Your task to perform on an android device: Go to Yahoo.com Image 0: 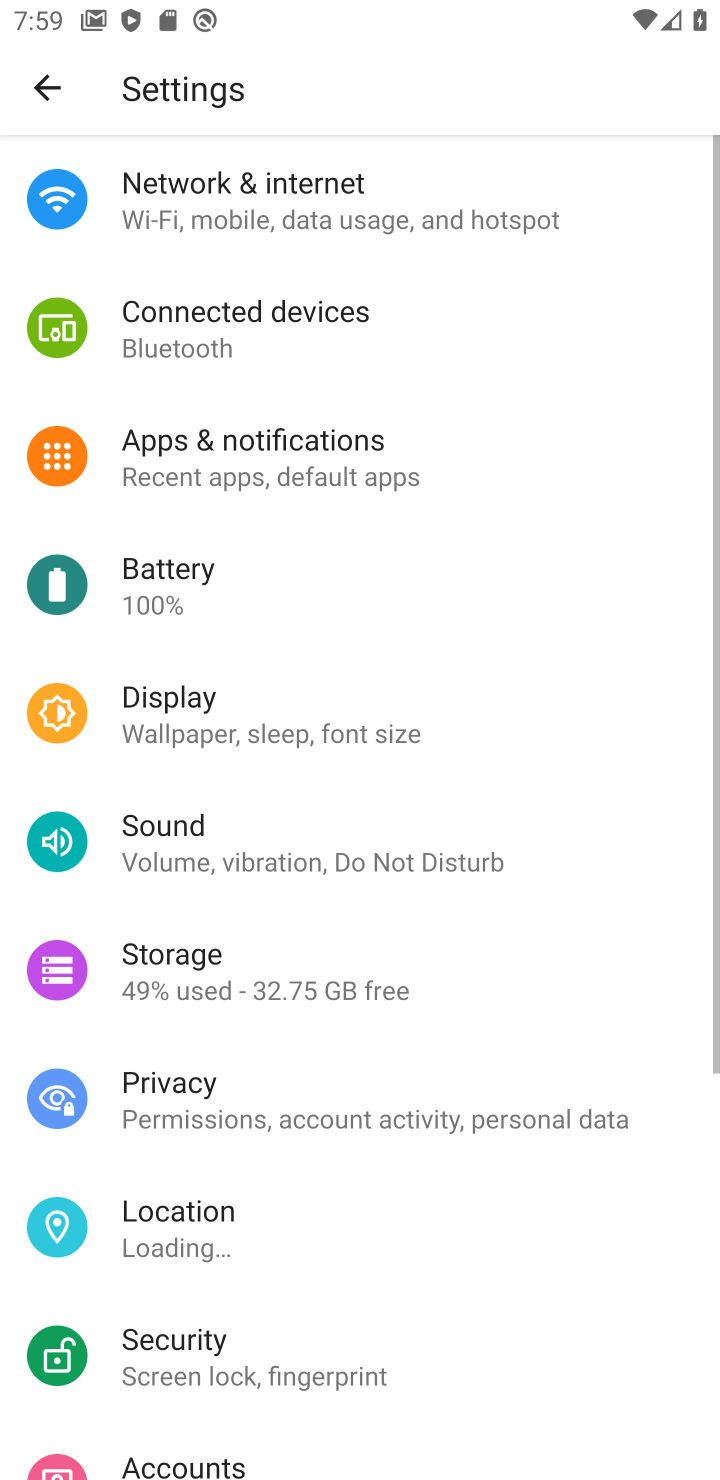
Step 0: press home button
Your task to perform on an android device: Go to Yahoo.com Image 1: 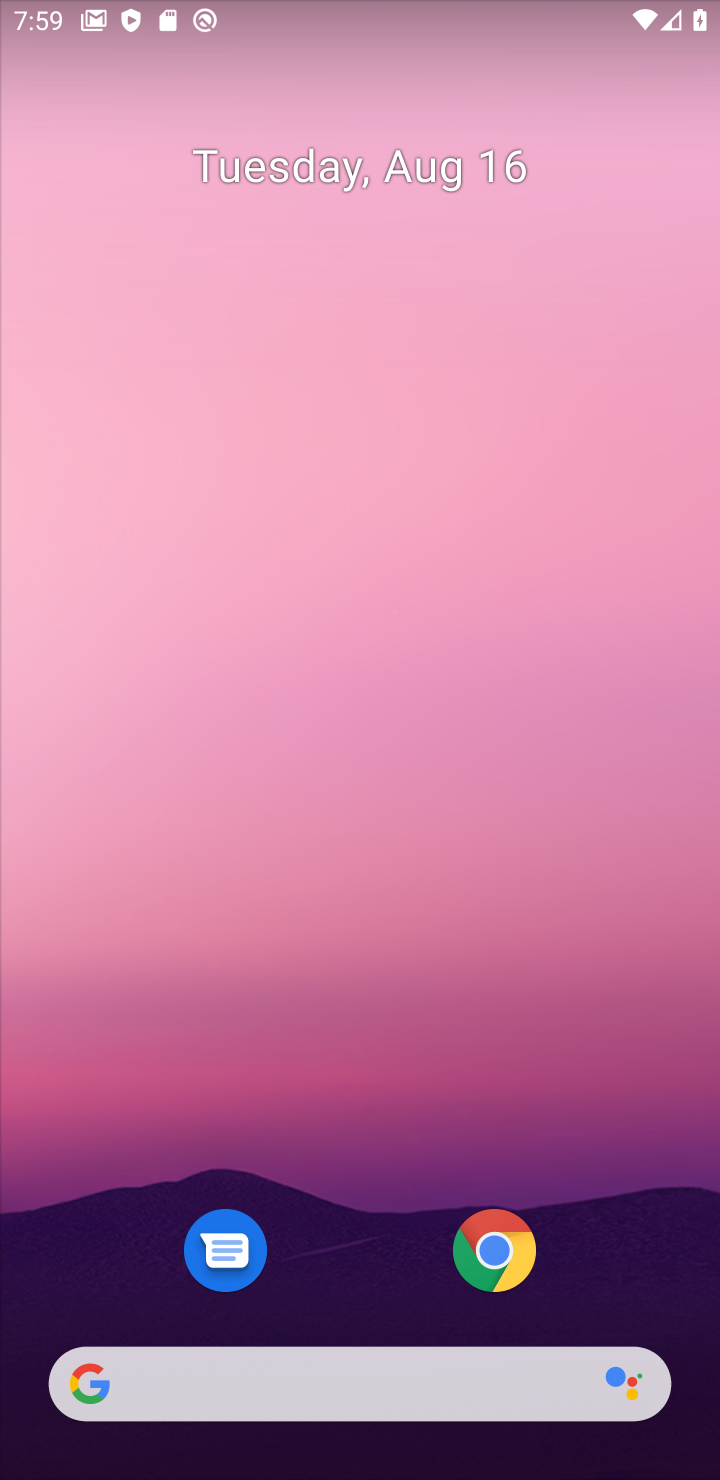
Step 1: click (496, 1251)
Your task to perform on an android device: Go to Yahoo.com Image 2: 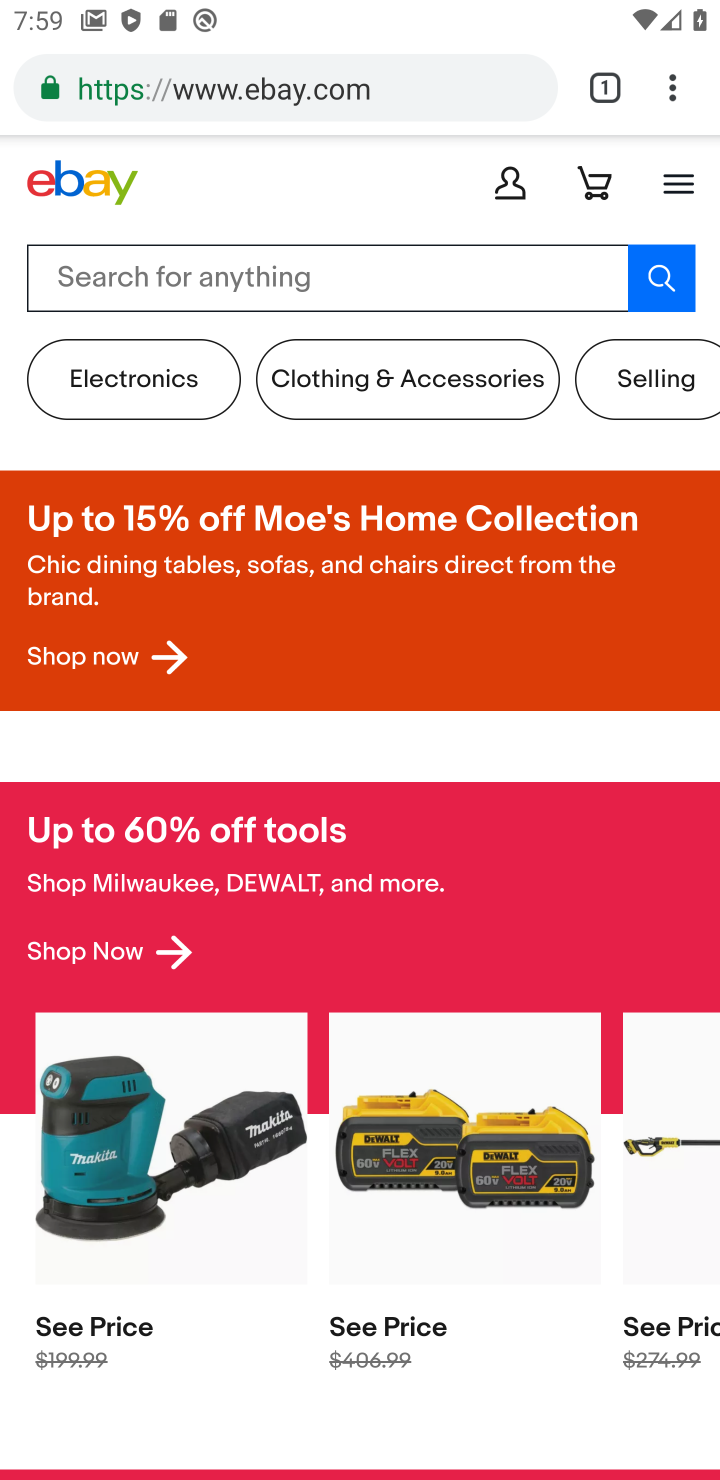
Step 2: click (608, 87)
Your task to perform on an android device: Go to Yahoo.com Image 3: 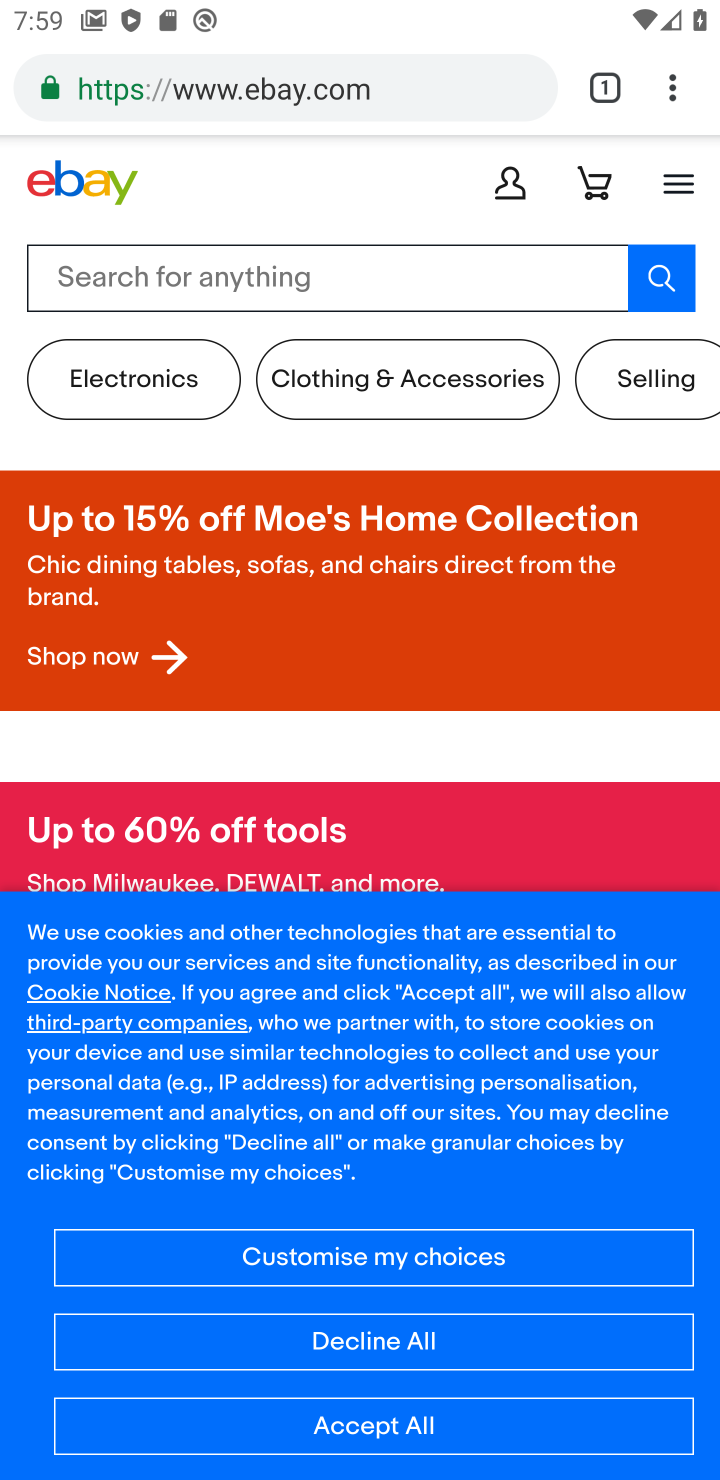
Step 3: click (608, 98)
Your task to perform on an android device: Go to Yahoo.com Image 4: 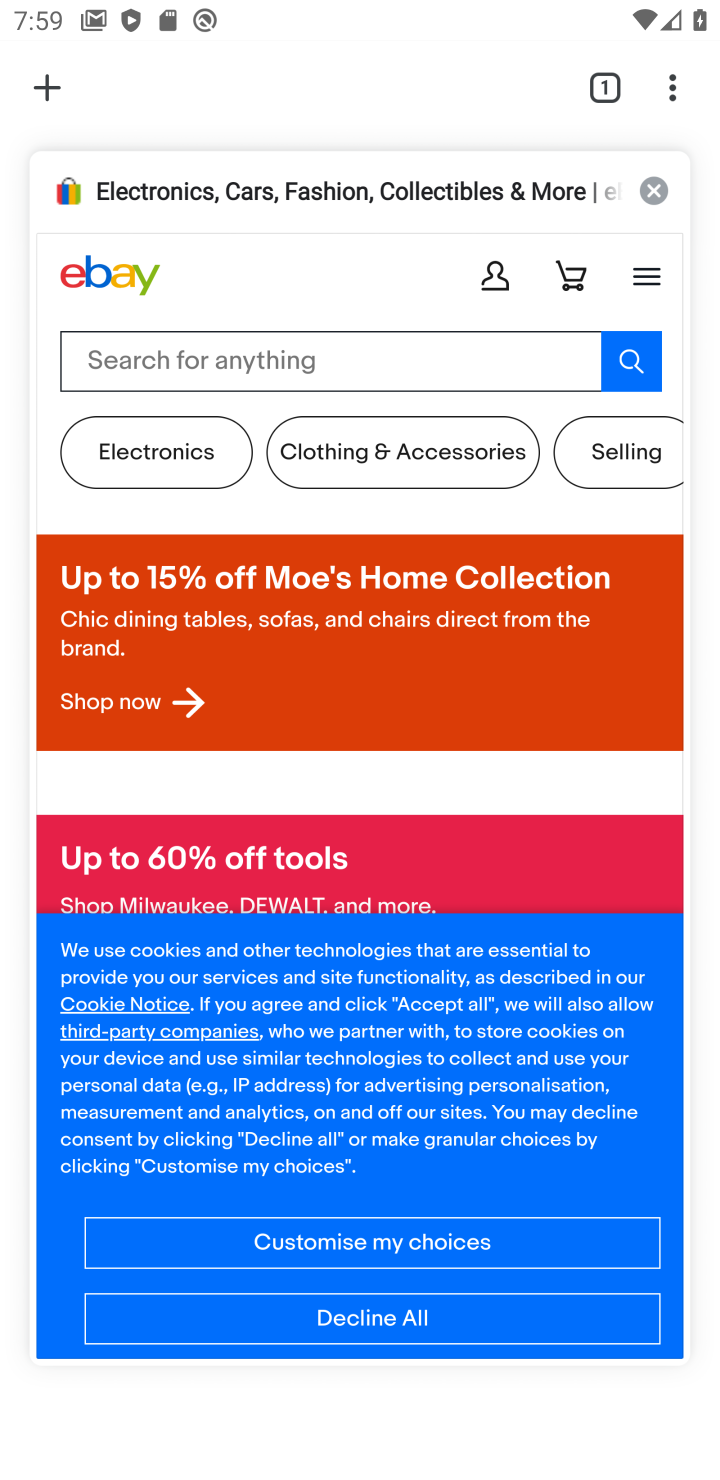
Step 4: click (53, 84)
Your task to perform on an android device: Go to Yahoo.com Image 5: 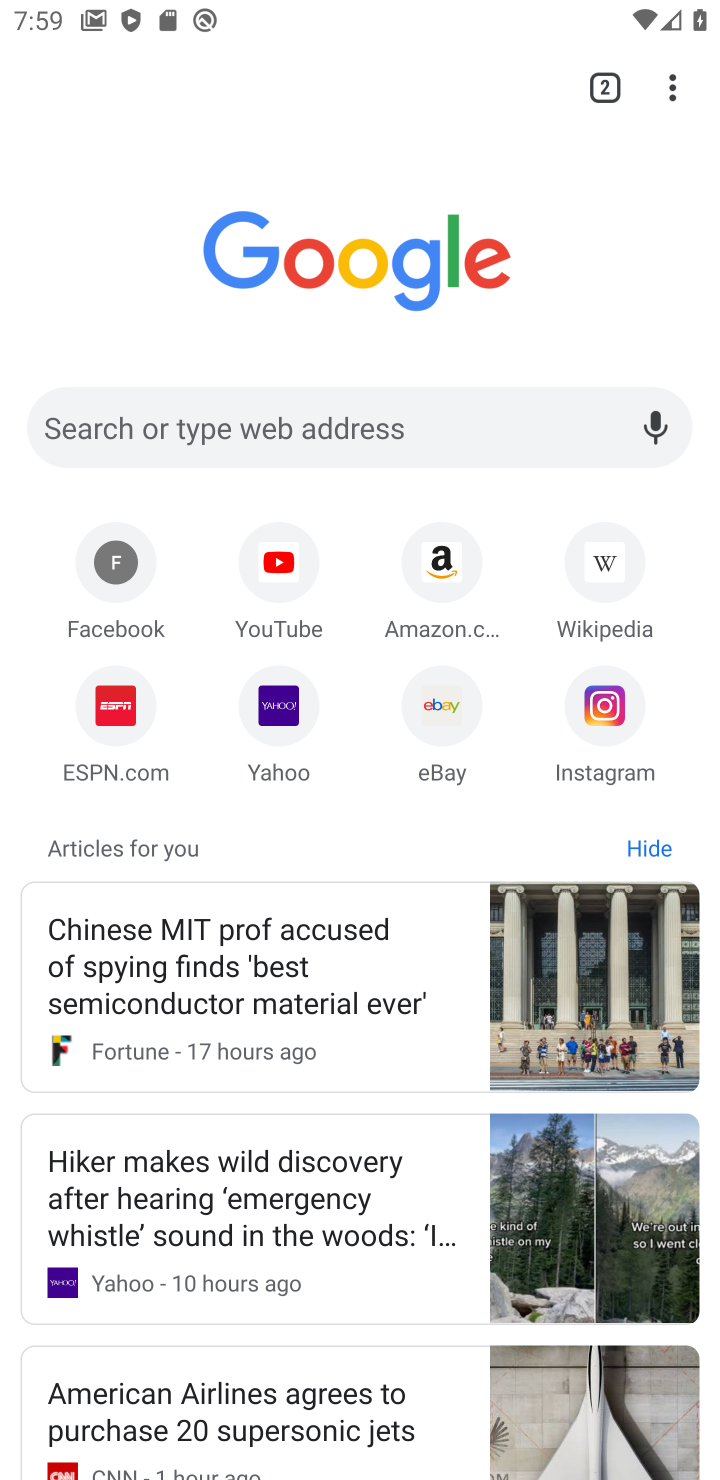
Step 5: click (300, 691)
Your task to perform on an android device: Go to Yahoo.com Image 6: 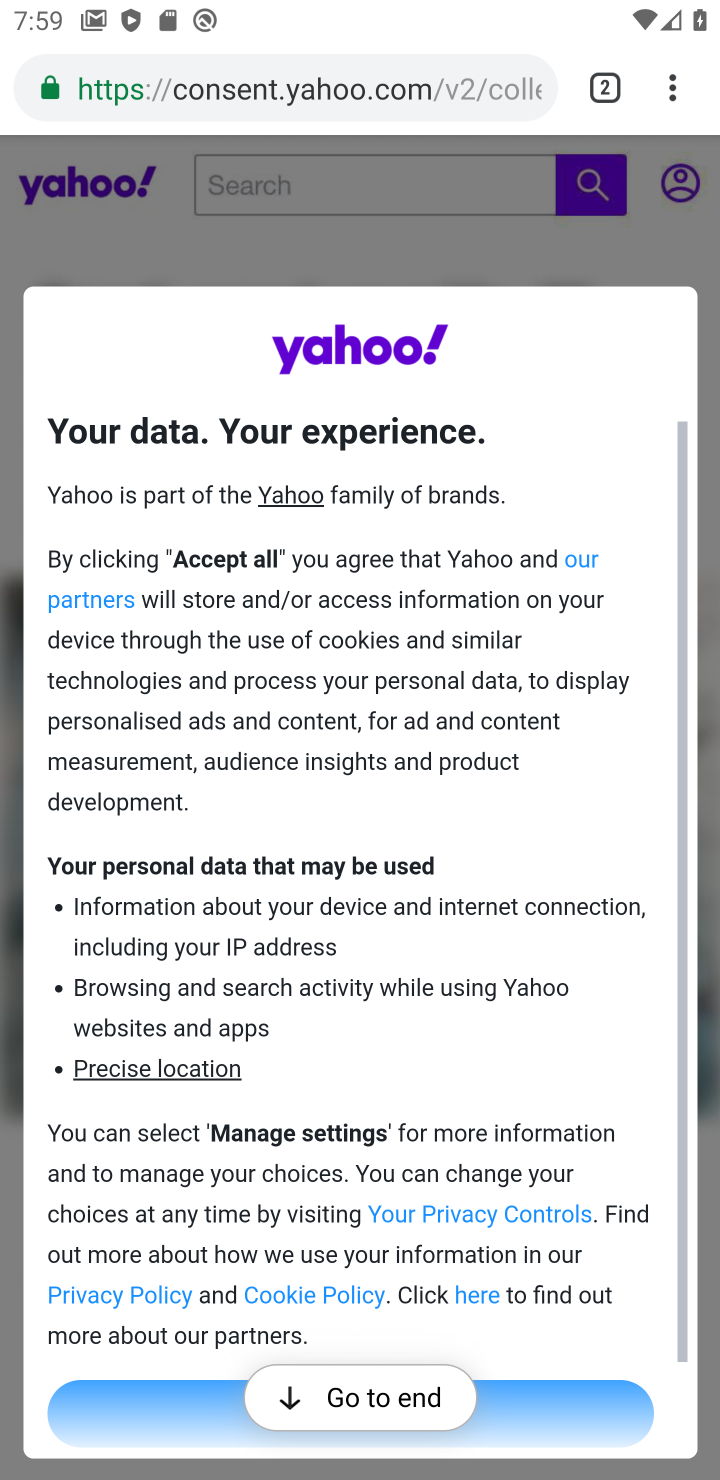
Step 6: task complete